Your task to perform on an android device: Open Google Maps Image 0: 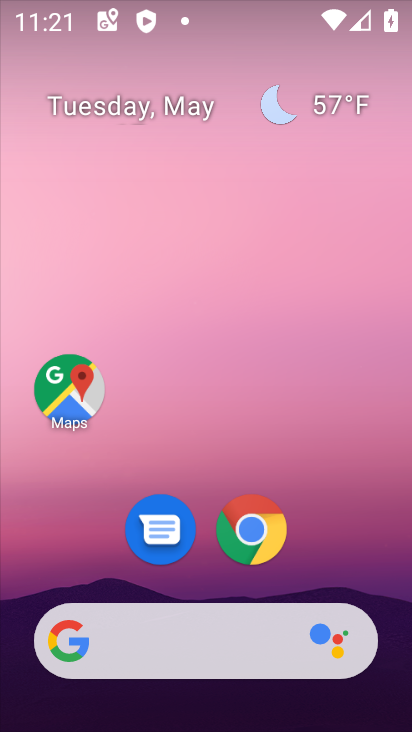
Step 0: click (51, 391)
Your task to perform on an android device: Open Google Maps Image 1: 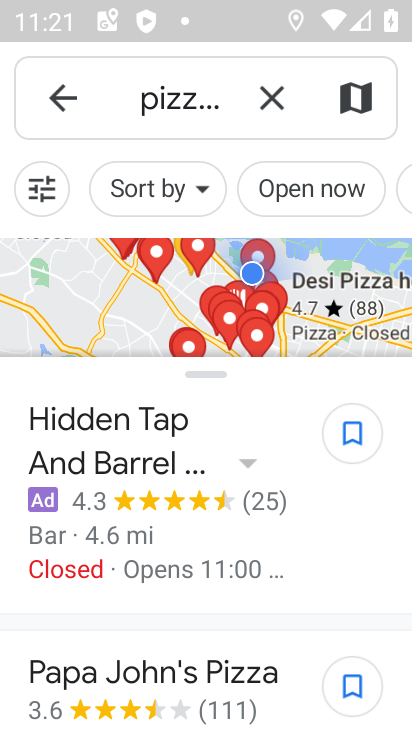
Step 1: task complete